Your task to perform on an android device: Open location settings Image 0: 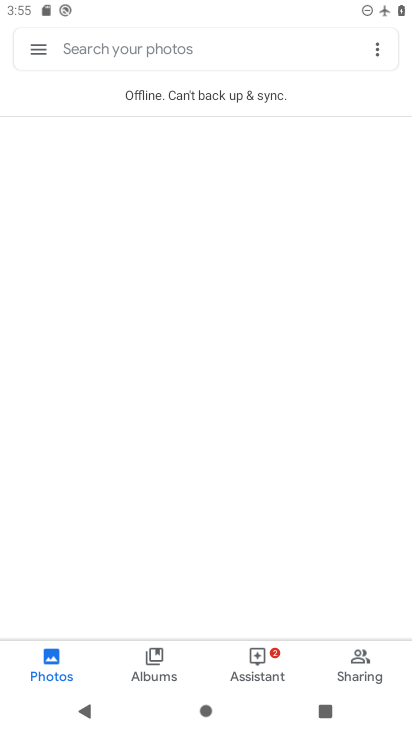
Step 0: press home button
Your task to perform on an android device: Open location settings Image 1: 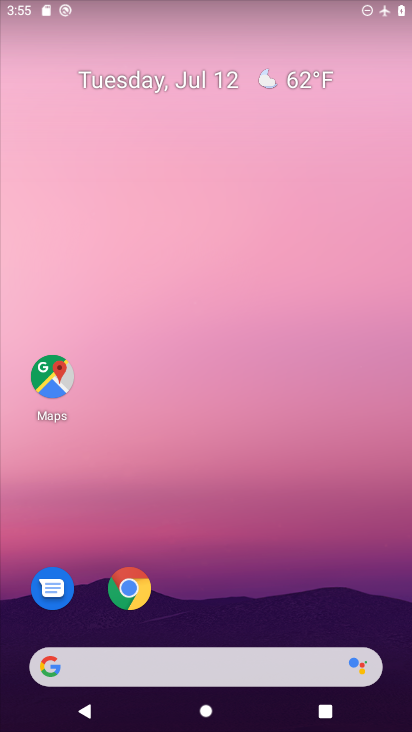
Step 1: drag from (190, 622) to (393, 501)
Your task to perform on an android device: Open location settings Image 2: 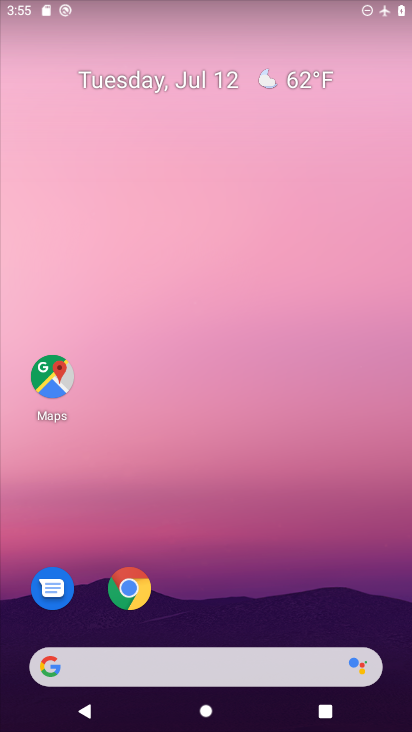
Step 2: drag from (260, 594) to (270, 11)
Your task to perform on an android device: Open location settings Image 3: 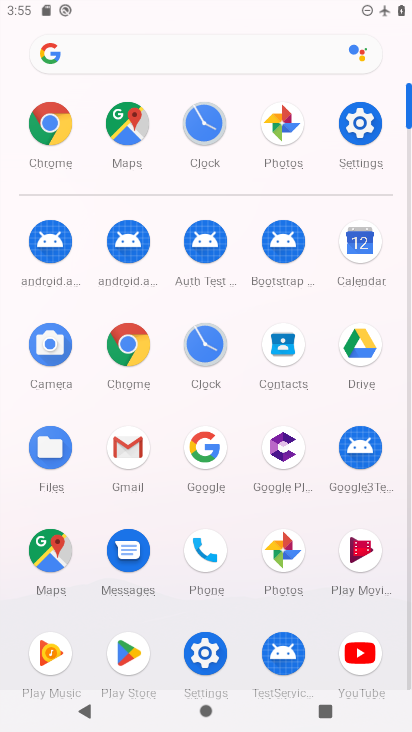
Step 3: click (213, 652)
Your task to perform on an android device: Open location settings Image 4: 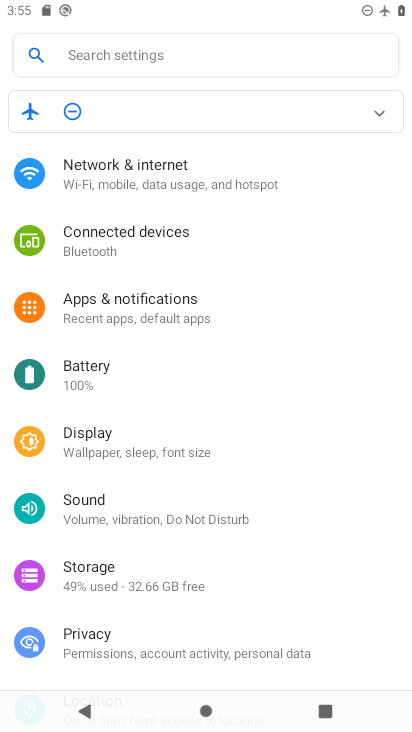
Step 4: drag from (155, 601) to (159, 306)
Your task to perform on an android device: Open location settings Image 5: 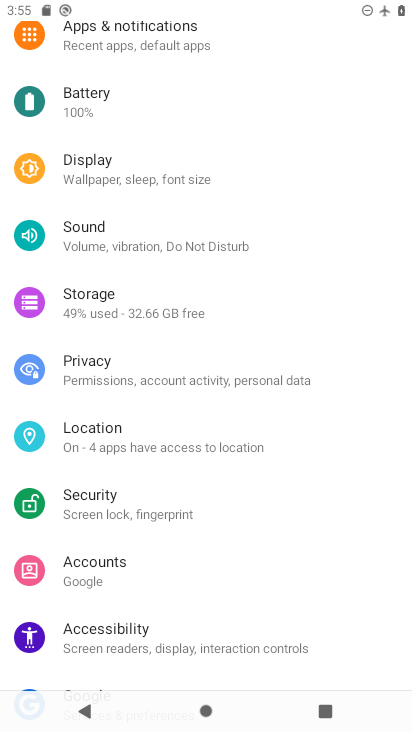
Step 5: click (146, 450)
Your task to perform on an android device: Open location settings Image 6: 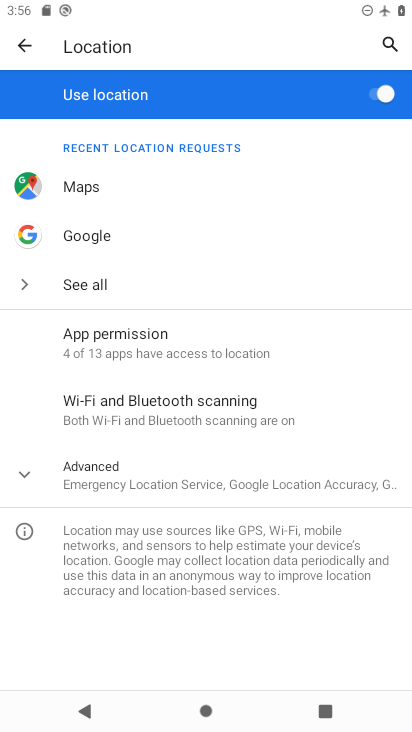
Step 6: click (170, 479)
Your task to perform on an android device: Open location settings Image 7: 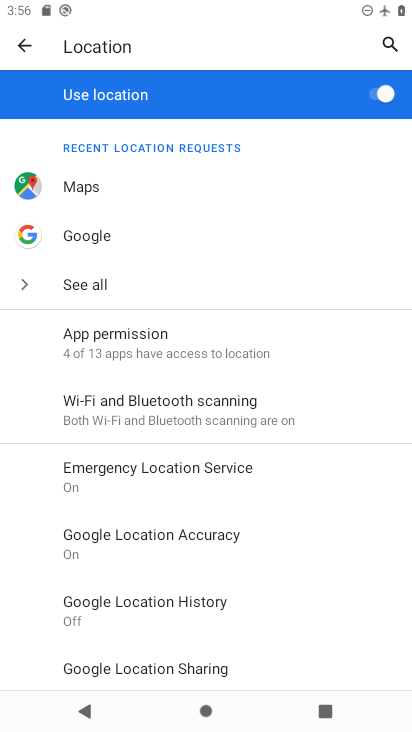
Step 7: task complete